Your task to perform on an android device: turn on sleep mode Image 0: 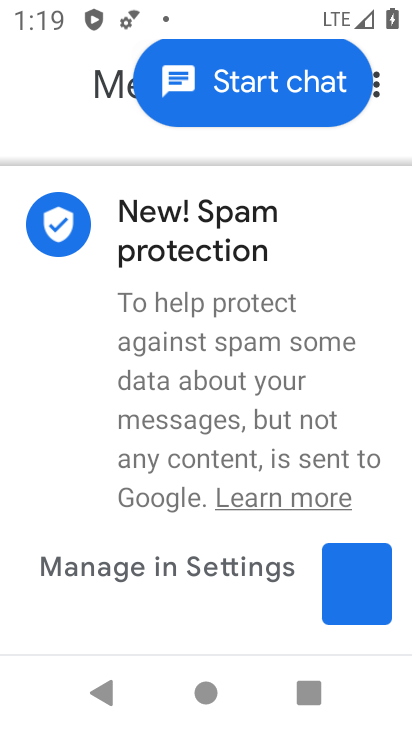
Step 0: press home button
Your task to perform on an android device: turn on sleep mode Image 1: 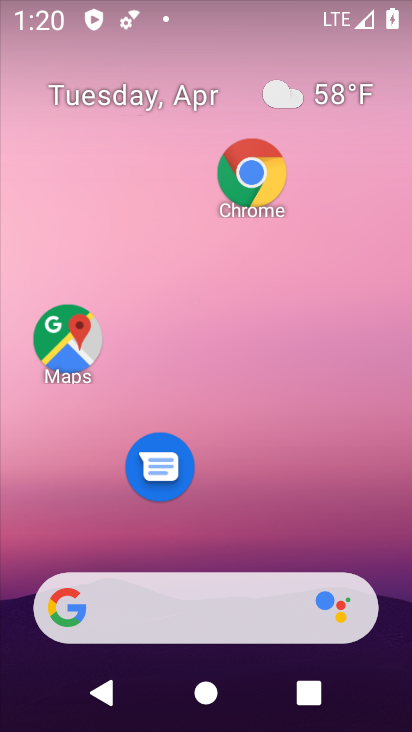
Step 1: task complete